Your task to perform on an android device: turn vacation reply on in the gmail app Image 0: 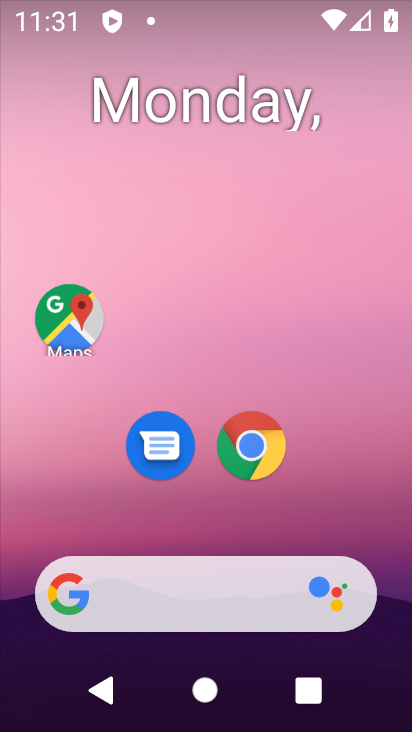
Step 0: drag from (88, 547) to (179, 84)
Your task to perform on an android device: turn vacation reply on in the gmail app Image 1: 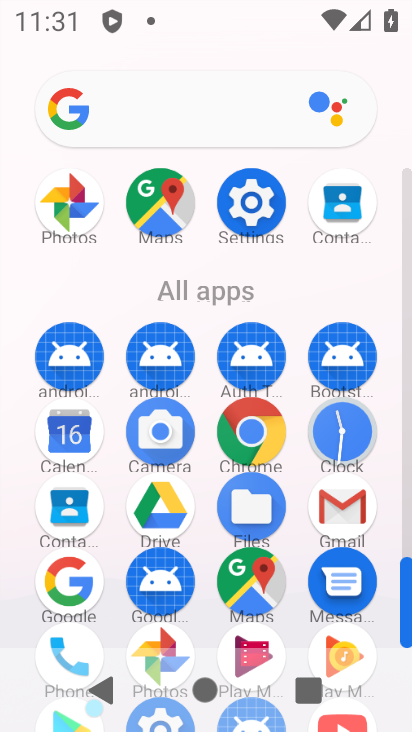
Step 1: click (350, 509)
Your task to perform on an android device: turn vacation reply on in the gmail app Image 2: 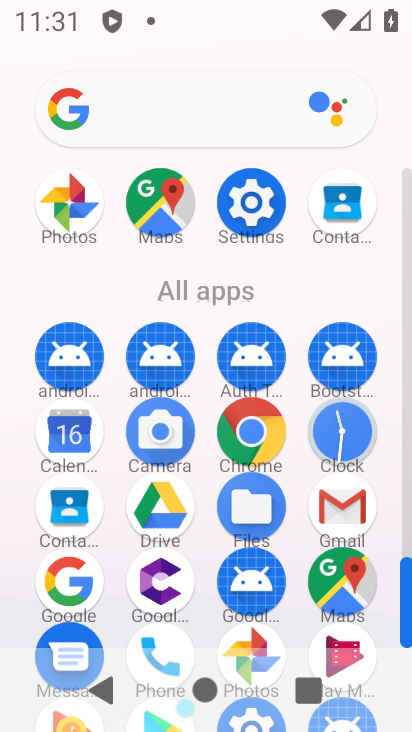
Step 2: click (353, 513)
Your task to perform on an android device: turn vacation reply on in the gmail app Image 3: 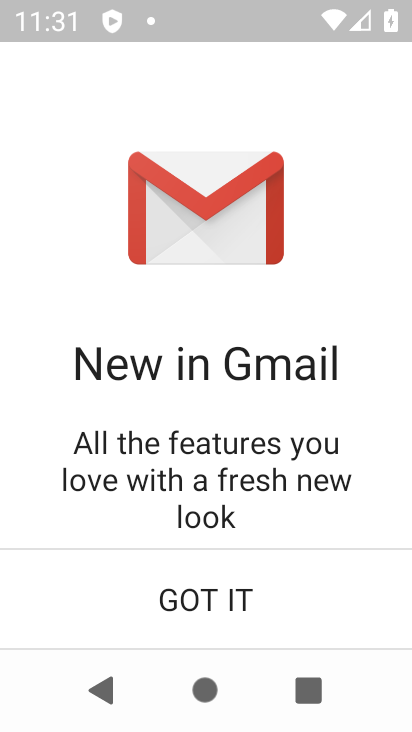
Step 3: click (226, 620)
Your task to perform on an android device: turn vacation reply on in the gmail app Image 4: 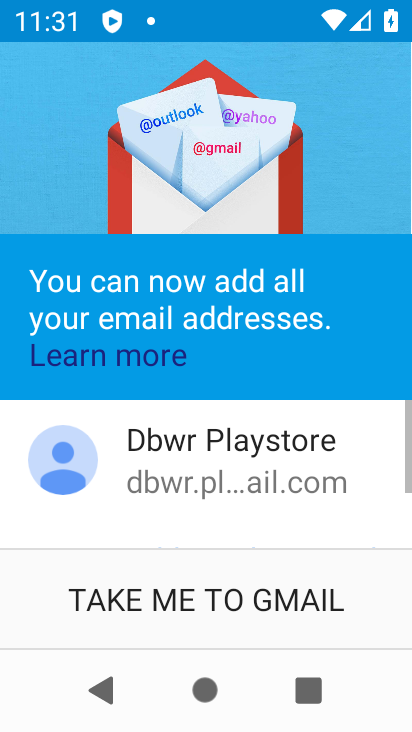
Step 4: click (307, 612)
Your task to perform on an android device: turn vacation reply on in the gmail app Image 5: 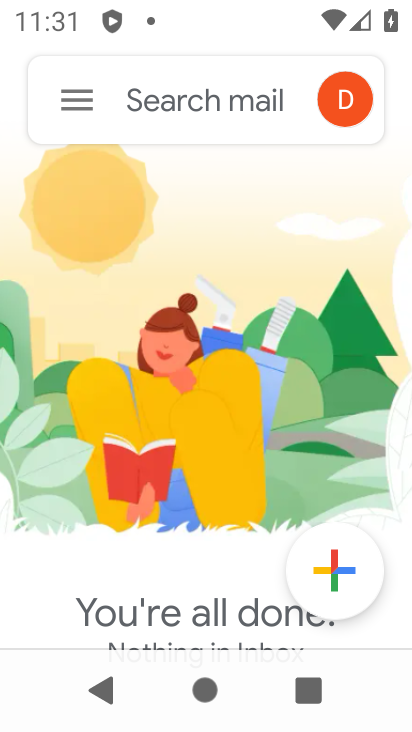
Step 5: click (85, 106)
Your task to perform on an android device: turn vacation reply on in the gmail app Image 6: 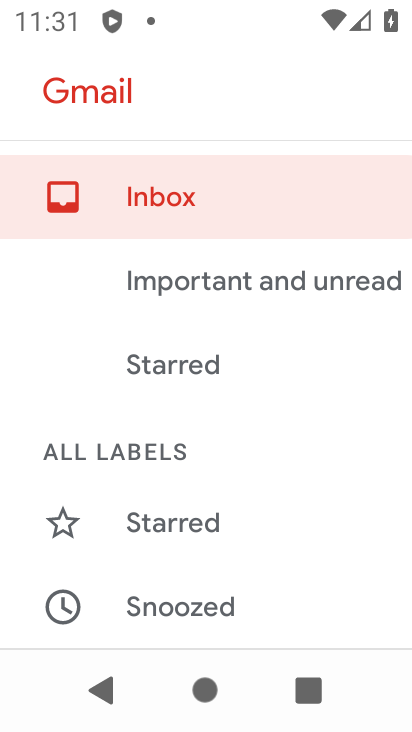
Step 6: drag from (185, 588) to (268, 223)
Your task to perform on an android device: turn vacation reply on in the gmail app Image 7: 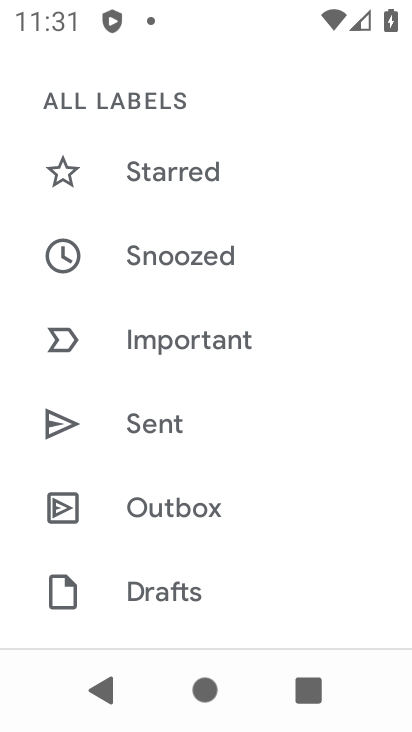
Step 7: drag from (184, 583) to (268, 205)
Your task to perform on an android device: turn vacation reply on in the gmail app Image 8: 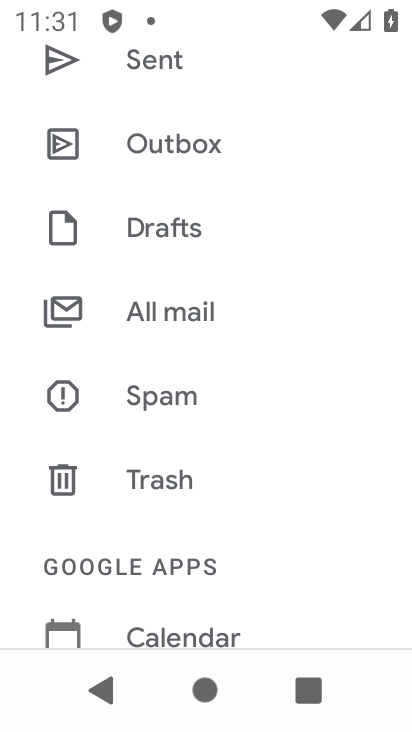
Step 8: drag from (209, 567) to (275, 213)
Your task to perform on an android device: turn vacation reply on in the gmail app Image 9: 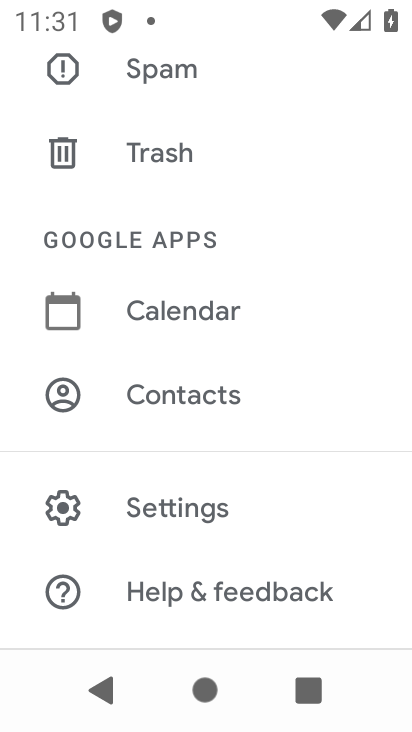
Step 9: click (222, 534)
Your task to perform on an android device: turn vacation reply on in the gmail app Image 10: 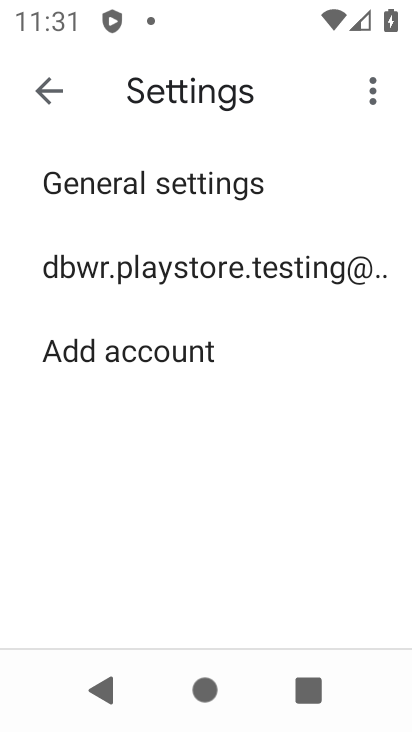
Step 10: click (270, 284)
Your task to perform on an android device: turn vacation reply on in the gmail app Image 11: 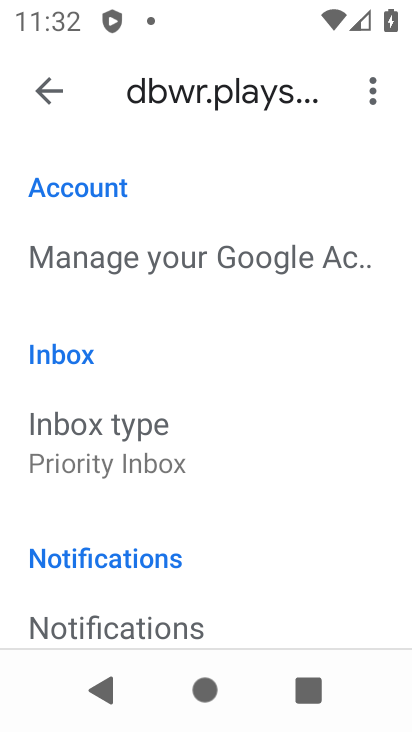
Step 11: drag from (154, 563) to (316, 207)
Your task to perform on an android device: turn vacation reply on in the gmail app Image 12: 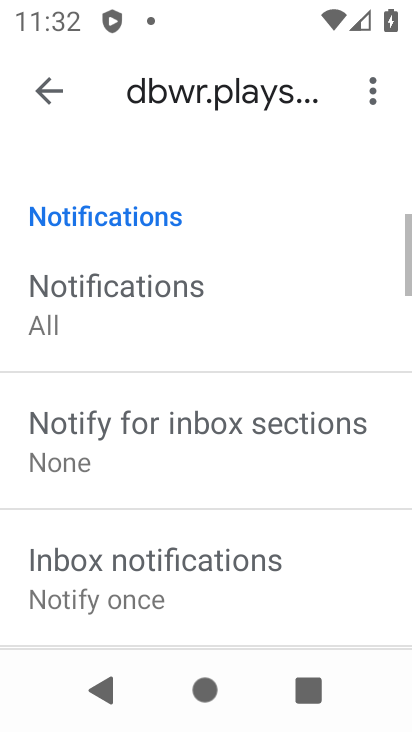
Step 12: drag from (177, 576) to (272, 177)
Your task to perform on an android device: turn vacation reply on in the gmail app Image 13: 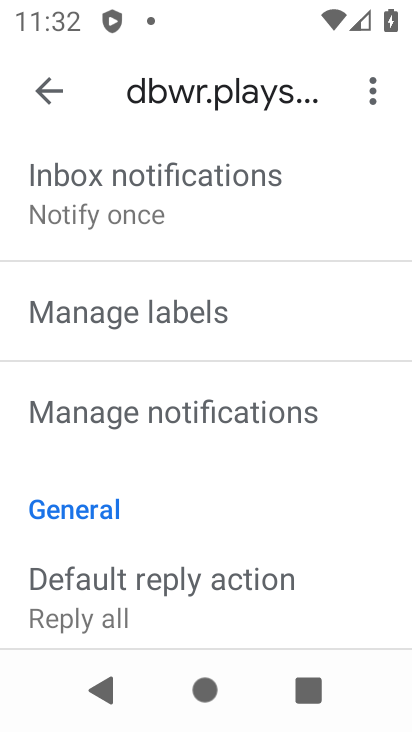
Step 13: drag from (176, 565) to (305, 162)
Your task to perform on an android device: turn vacation reply on in the gmail app Image 14: 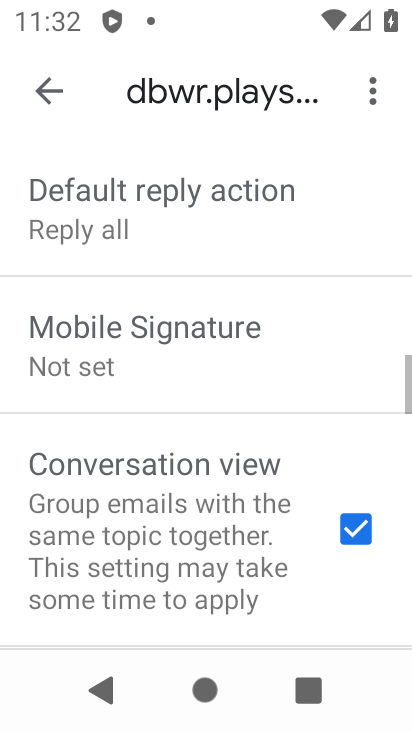
Step 14: drag from (214, 580) to (304, 226)
Your task to perform on an android device: turn vacation reply on in the gmail app Image 15: 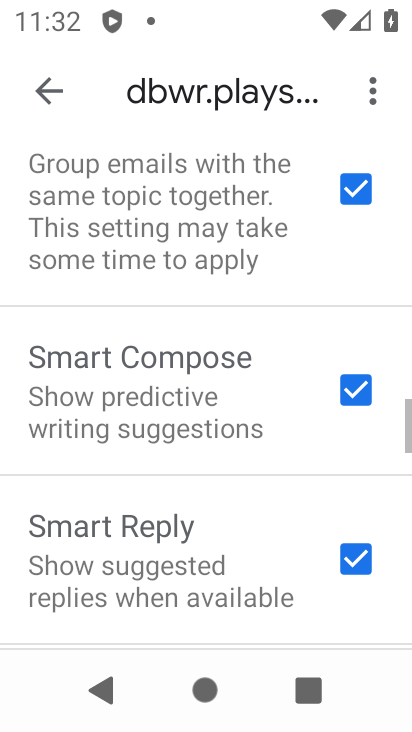
Step 15: drag from (194, 595) to (266, 253)
Your task to perform on an android device: turn vacation reply on in the gmail app Image 16: 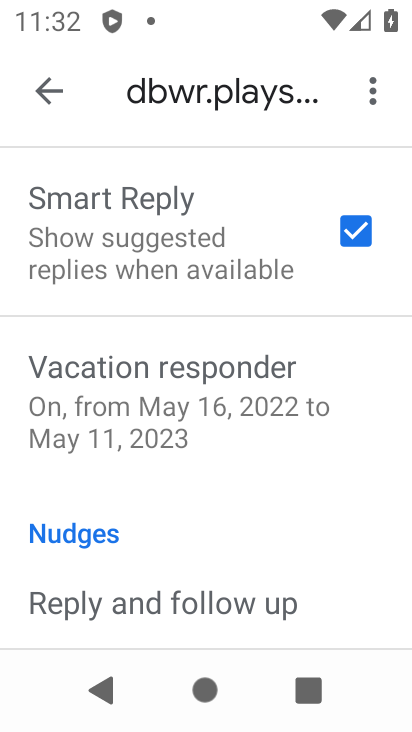
Step 16: click (204, 449)
Your task to perform on an android device: turn vacation reply on in the gmail app Image 17: 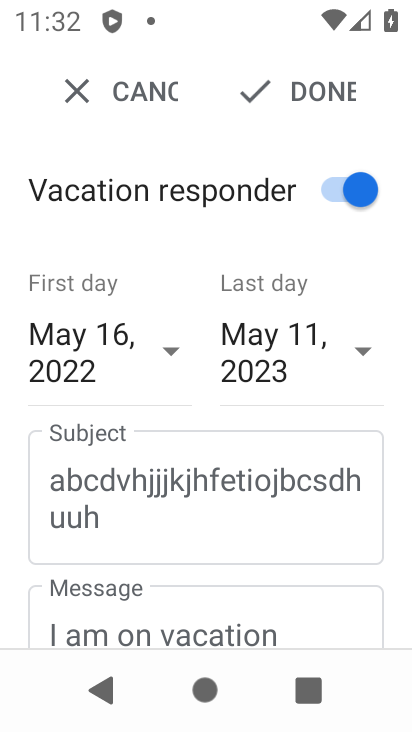
Step 17: task complete